Your task to perform on an android device: change the clock style Image 0: 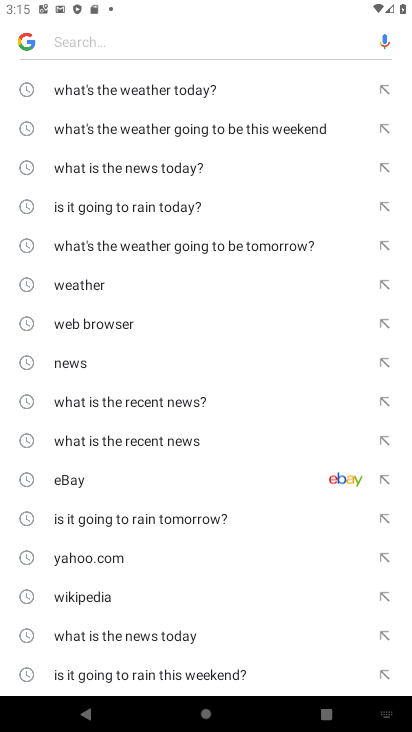
Step 0: press home button
Your task to perform on an android device: change the clock style Image 1: 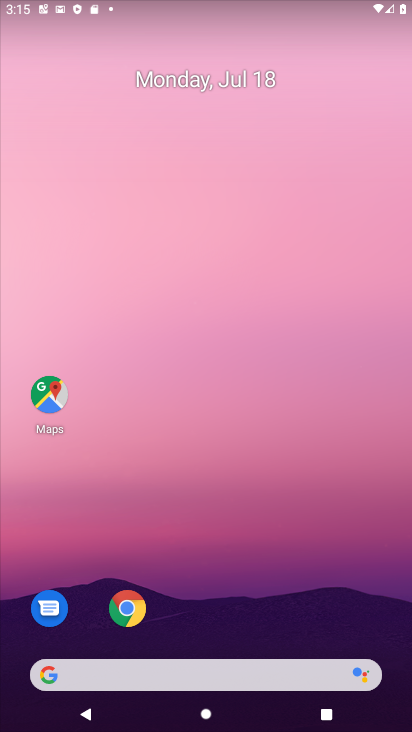
Step 1: drag from (266, 623) to (315, 19)
Your task to perform on an android device: change the clock style Image 2: 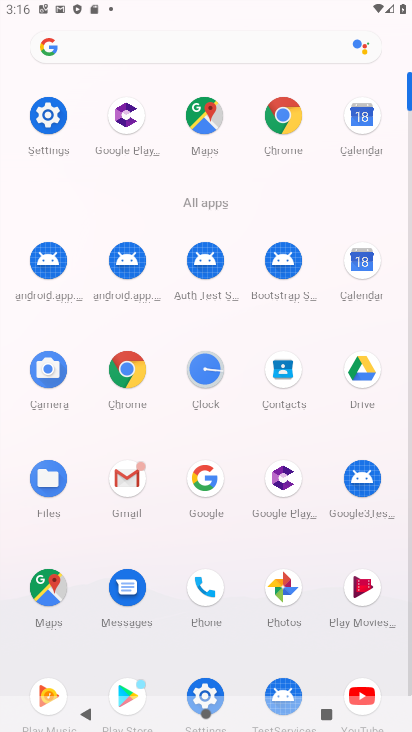
Step 2: click (202, 379)
Your task to perform on an android device: change the clock style Image 3: 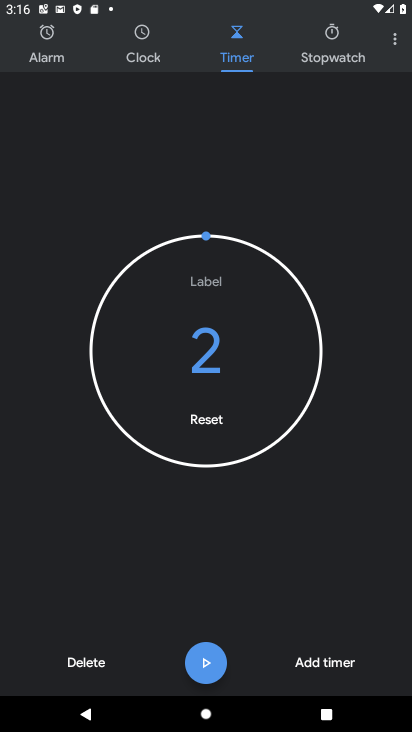
Step 3: click (399, 46)
Your task to perform on an android device: change the clock style Image 4: 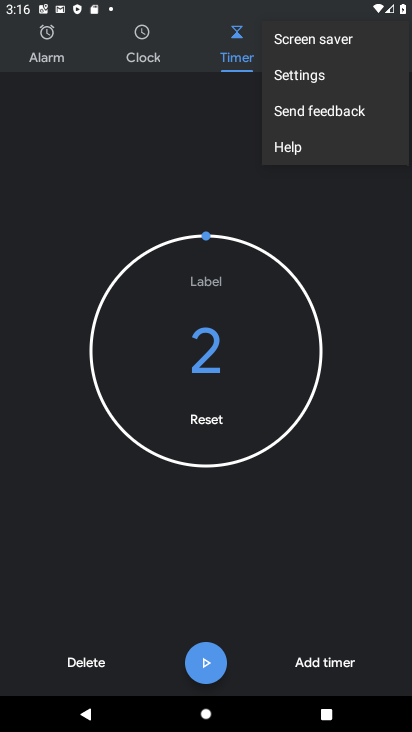
Step 4: click (308, 81)
Your task to perform on an android device: change the clock style Image 5: 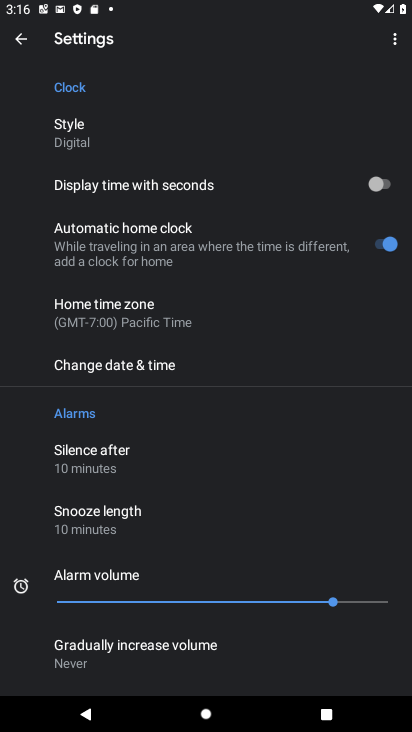
Step 5: click (142, 137)
Your task to perform on an android device: change the clock style Image 6: 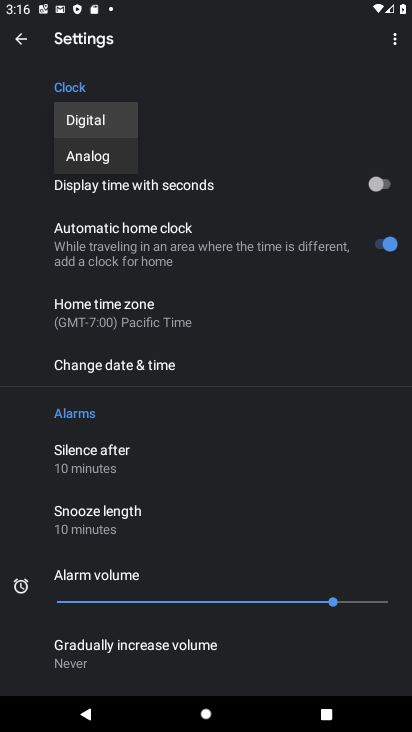
Step 6: click (108, 160)
Your task to perform on an android device: change the clock style Image 7: 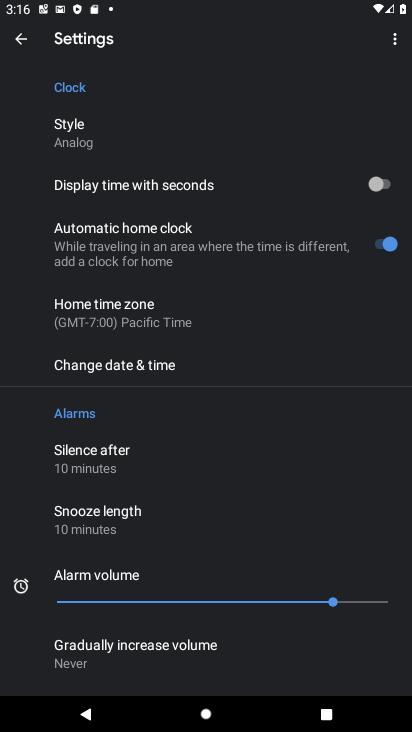
Step 7: task complete